Your task to perform on an android device: turn off wifi Image 0: 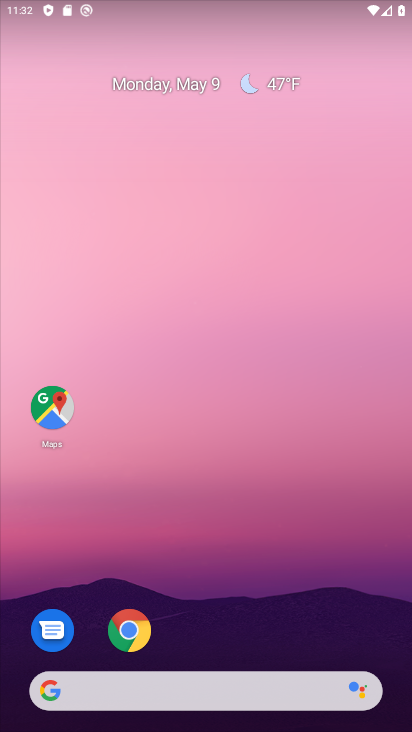
Step 0: press home button
Your task to perform on an android device: turn off wifi Image 1: 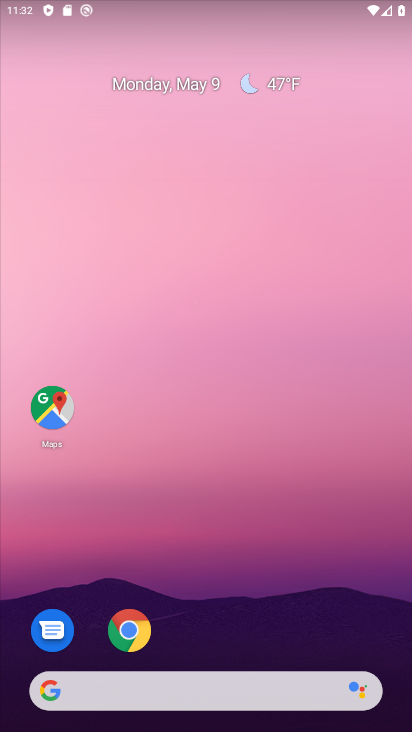
Step 1: drag from (165, 693) to (312, 126)
Your task to perform on an android device: turn off wifi Image 2: 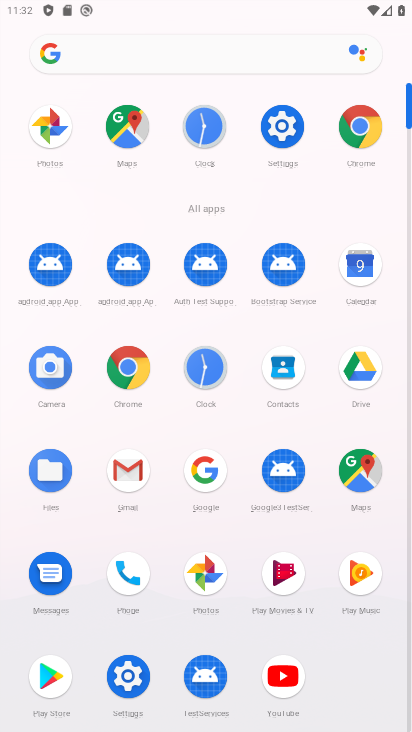
Step 2: click (275, 120)
Your task to perform on an android device: turn off wifi Image 3: 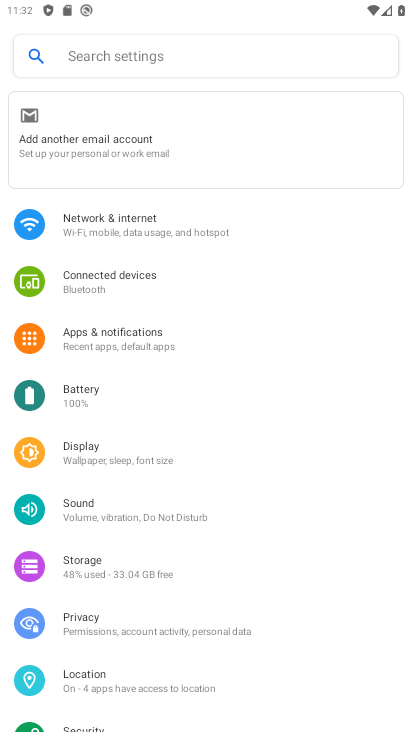
Step 3: click (144, 230)
Your task to perform on an android device: turn off wifi Image 4: 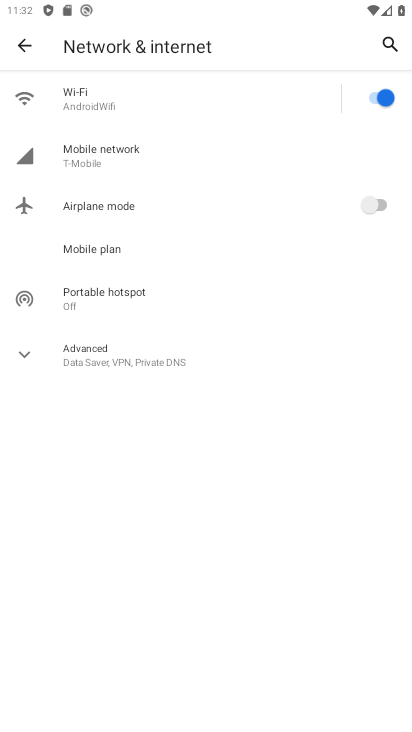
Step 4: click (378, 101)
Your task to perform on an android device: turn off wifi Image 5: 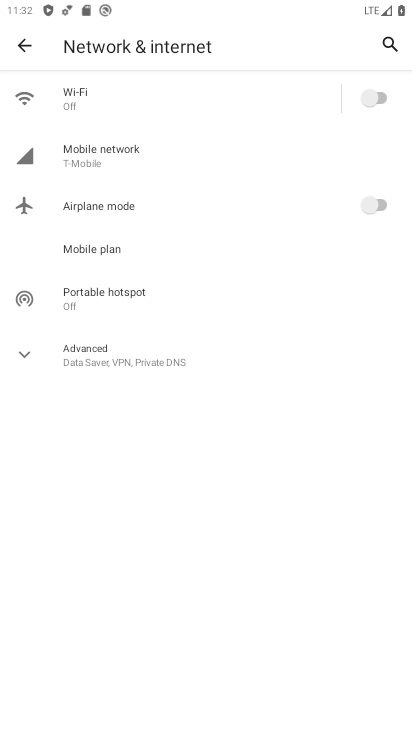
Step 5: task complete